Your task to perform on an android device: Open a new incognito window in the chrome app Image 0: 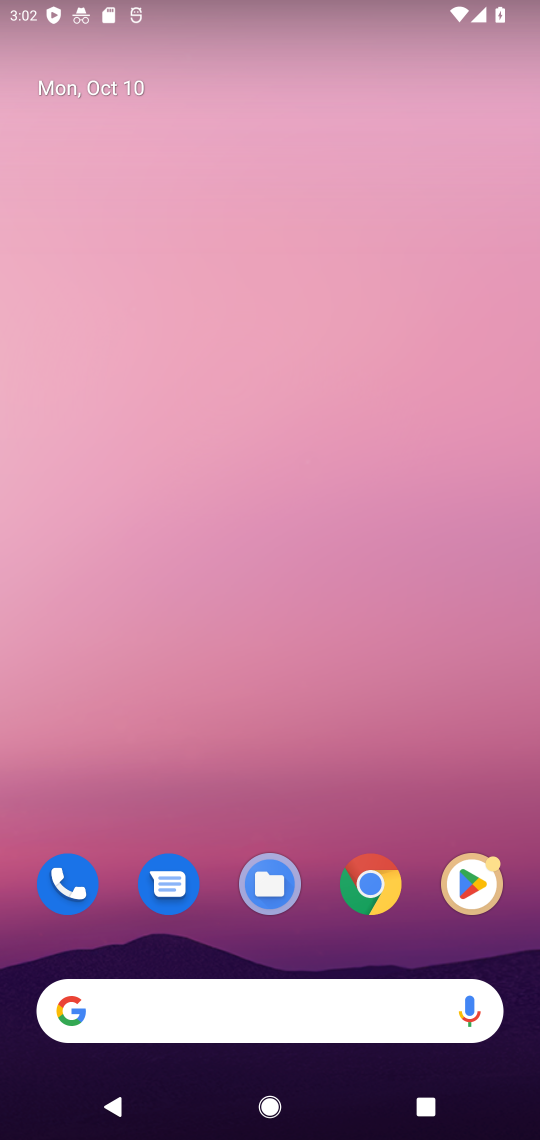
Step 0: click (374, 876)
Your task to perform on an android device: Open a new incognito window in the chrome app Image 1: 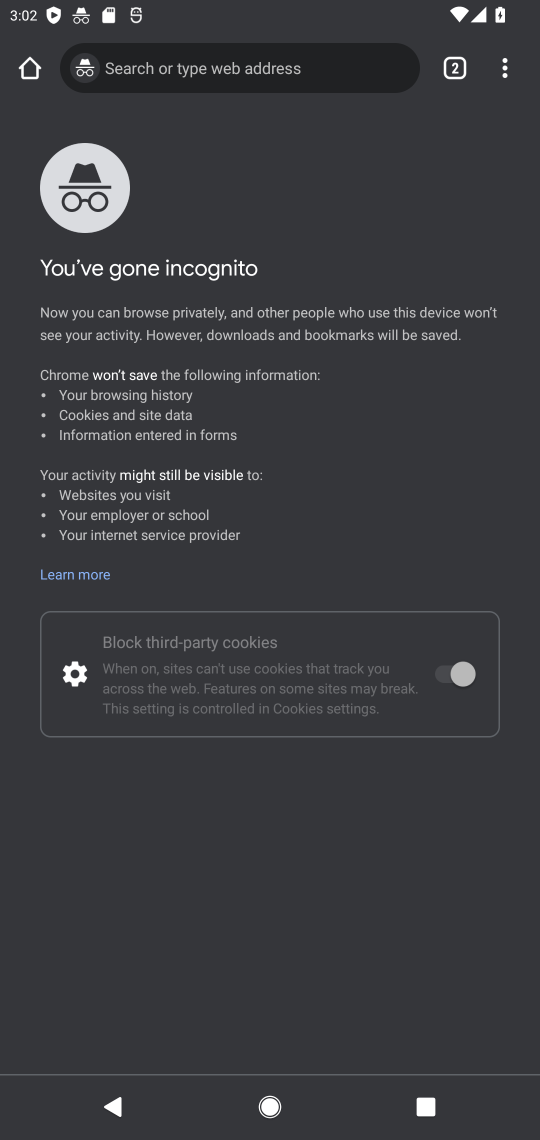
Step 1: click (459, 74)
Your task to perform on an android device: Open a new incognito window in the chrome app Image 2: 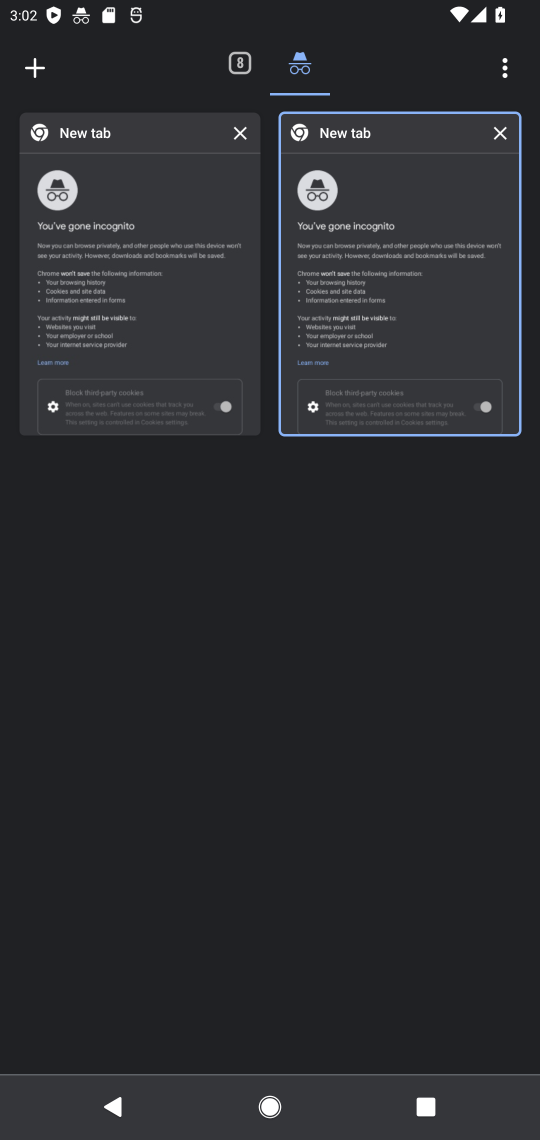
Step 2: click (42, 67)
Your task to perform on an android device: Open a new incognito window in the chrome app Image 3: 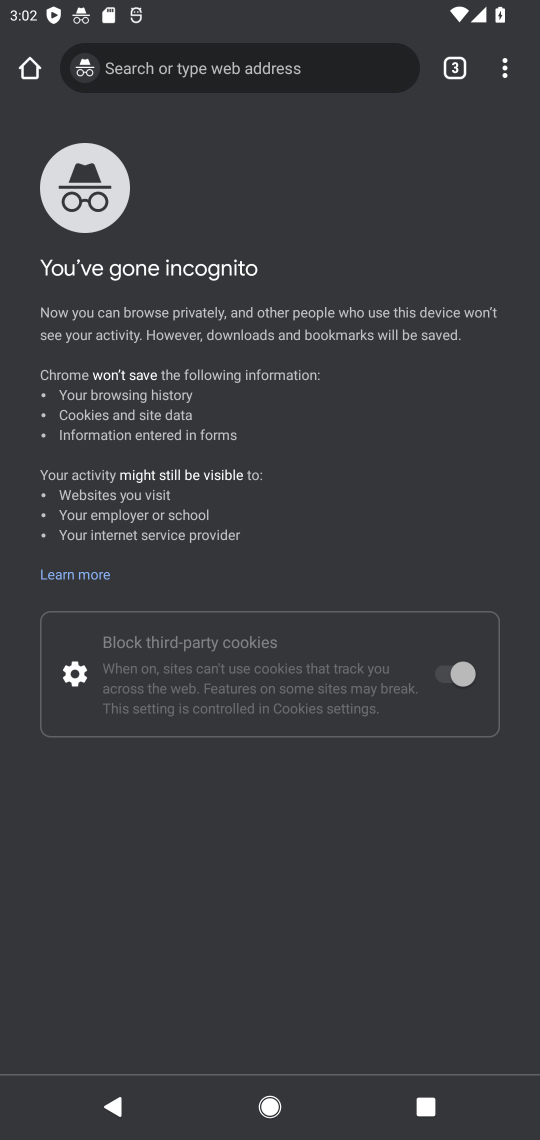
Step 3: task complete